Your task to perform on an android device: delete a single message in the gmail app Image 0: 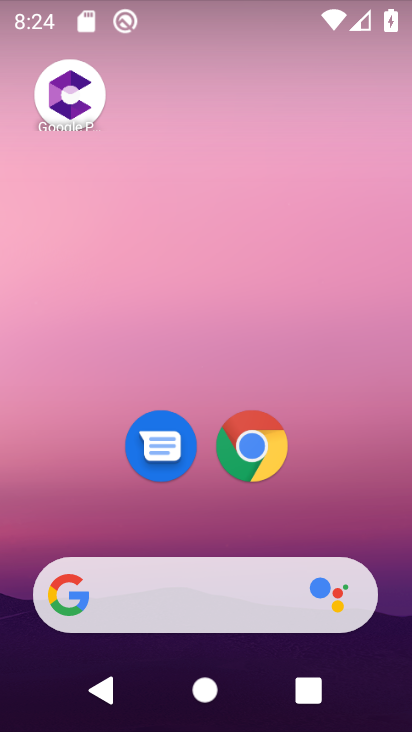
Step 0: drag from (69, 288) to (398, 271)
Your task to perform on an android device: delete a single message in the gmail app Image 1: 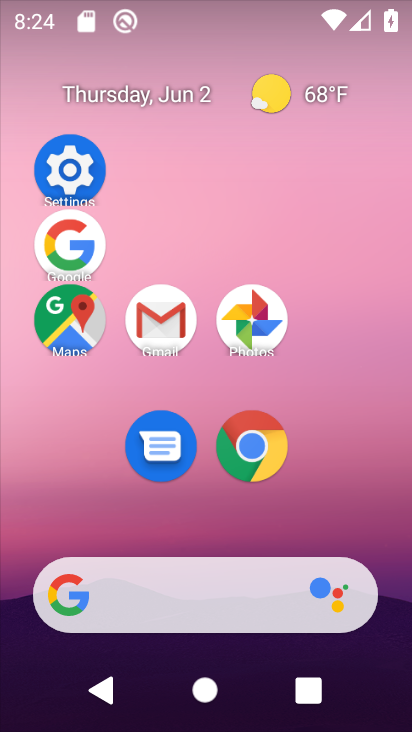
Step 1: click (201, 309)
Your task to perform on an android device: delete a single message in the gmail app Image 2: 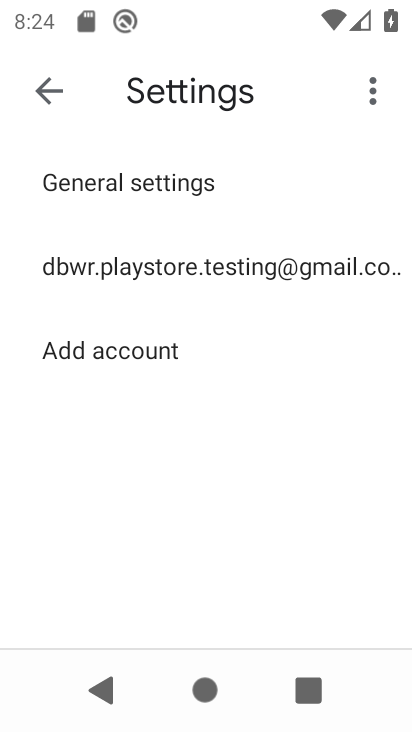
Step 2: click (155, 277)
Your task to perform on an android device: delete a single message in the gmail app Image 3: 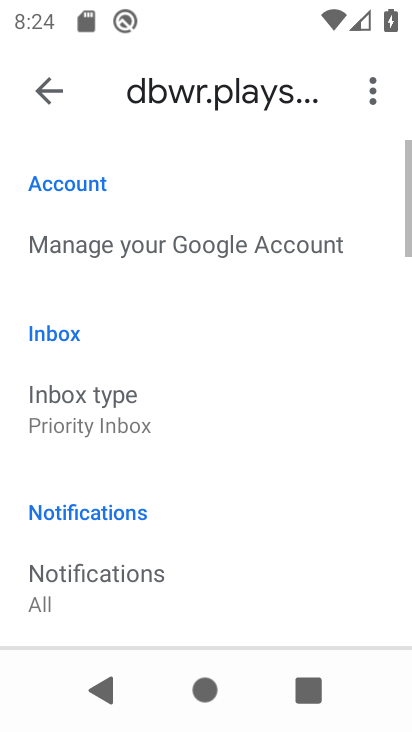
Step 3: click (47, 111)
Your task to perform on an android device: delete a single message in the gmail app Image 4: 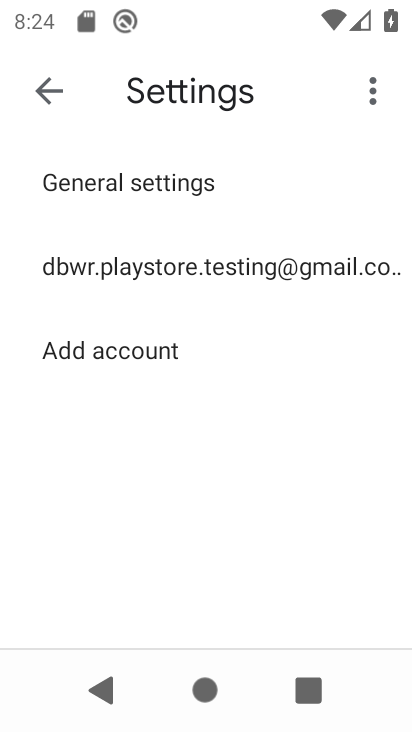
Step 4: click (48, 112)
Your task to perform on an android device: delete a single message in the gmail app Image 5: 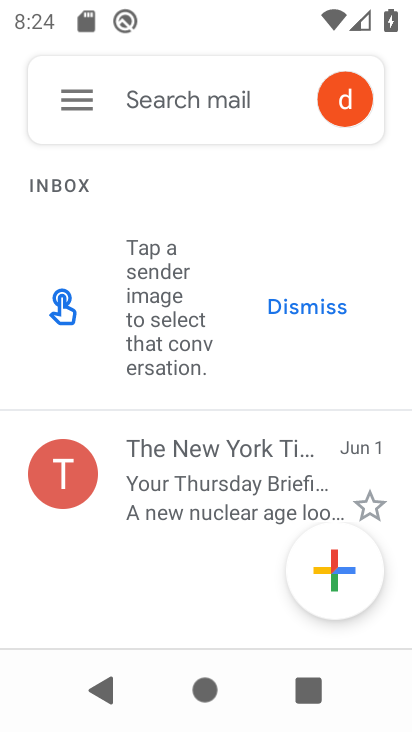
Step 5: click (72, 103)
Your task to perform on an android device: delete a single message in the gmail app Image 6: 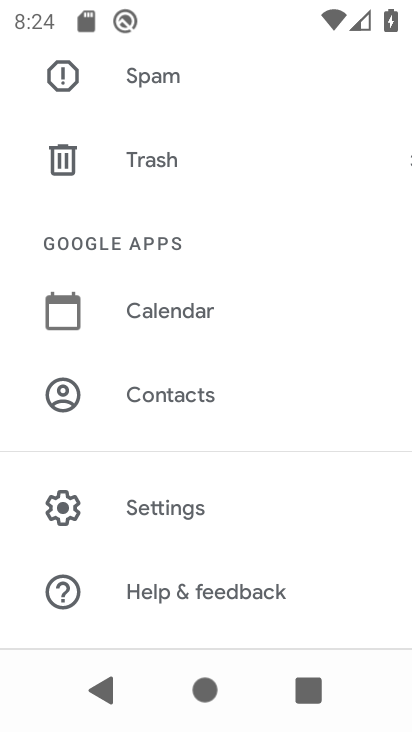
Step 6: drag from (288, 140) to (311, 509)
Your task to perform on an android device: delete a single message in the gmail app Image 7: 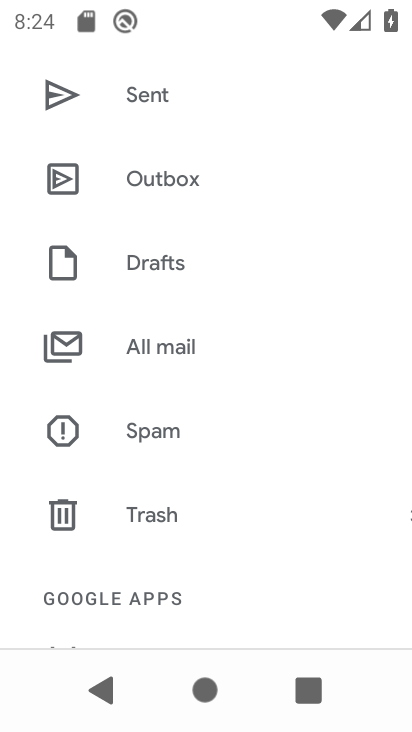
Step 7: click (156, 342)
Your task to perform on an android device: delete a single message in the gmail app Image 8: 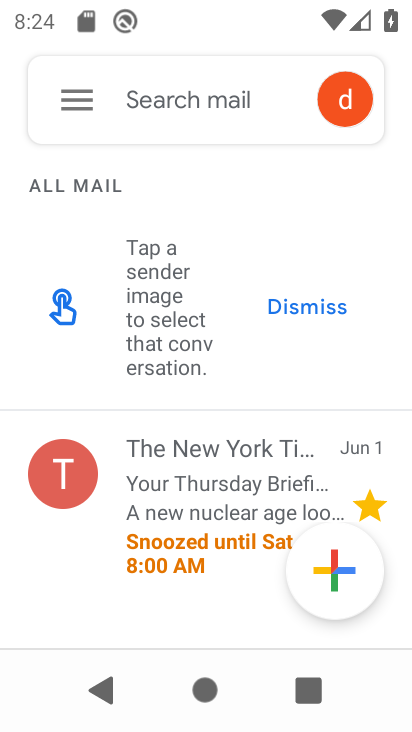
Step 8: click (217, 473)
Your task to perform on an android device: delete a single message in the gmail app Image 9: 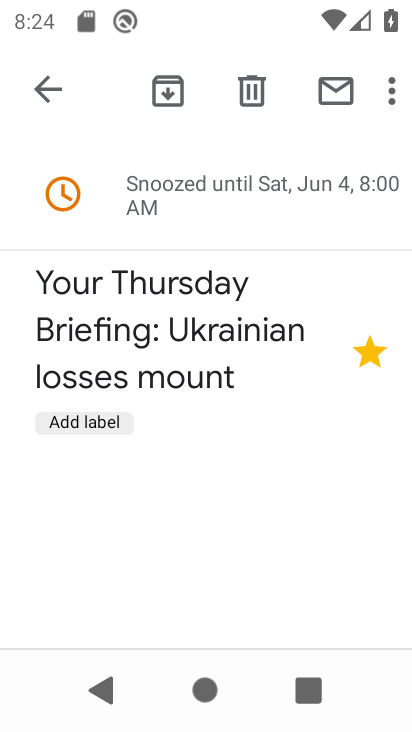
Step 9: click (255, 99)
Your task to perform on an android device: delete a single message in the gmail app Image 10: 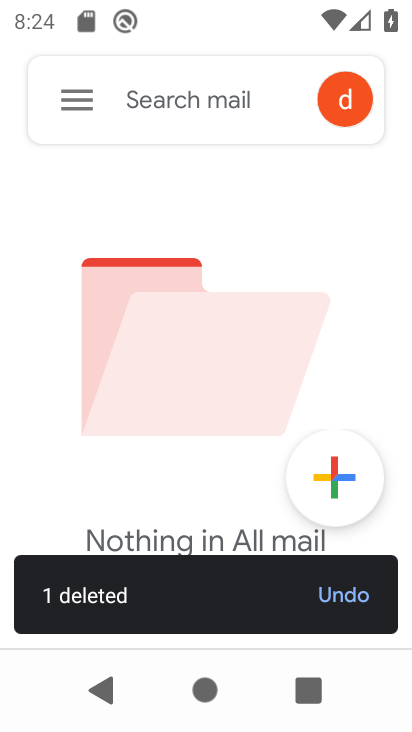
Step 10: task complete